Your task to perform on an android device: Open display settings Image 0: 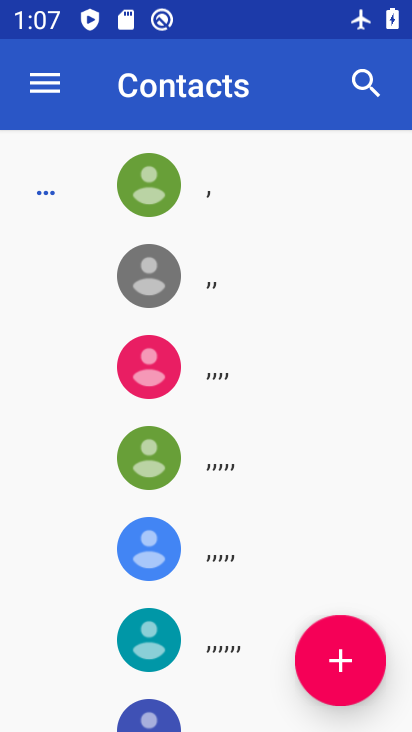
Step 0: press home button
Your task to perform on an android device: Open display settings Image 1: 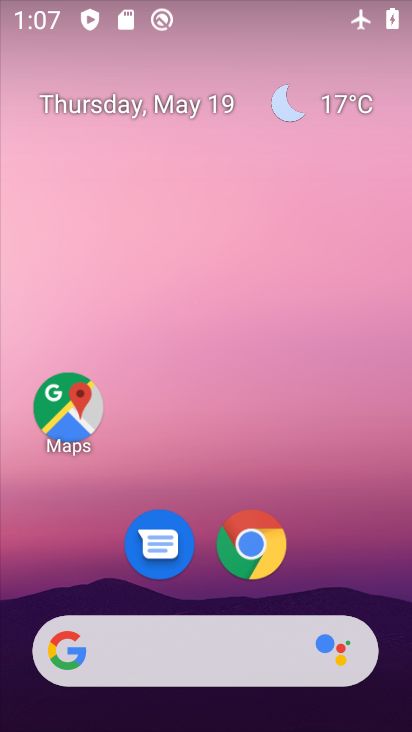
Step 1: drag from (226, 725) to (227, 54)
Your task to perform on an android device: Open display settings Image 2: 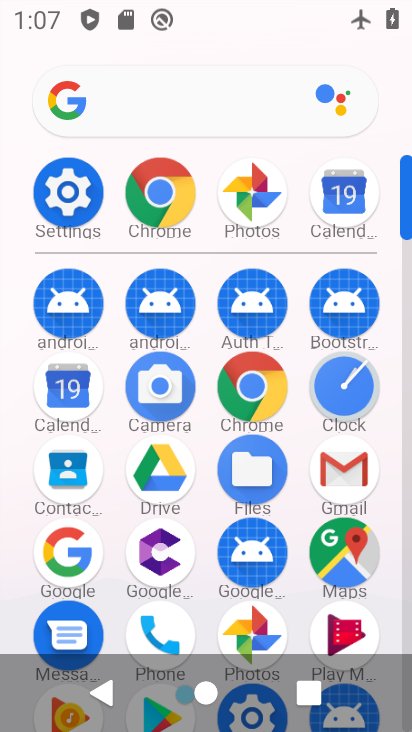
Step 2: click (72, 189)
Your task to perform on an android device: Open display settings Image 3: 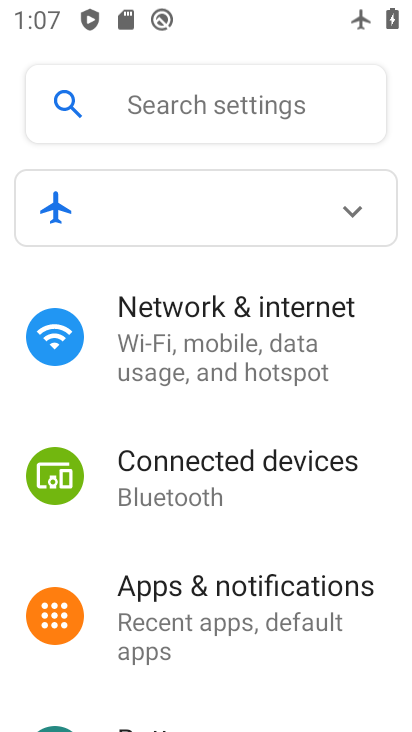
Step 3: drag from (185, 664) to (195, 379)
Your task to perform on an android device: Open display settings Image 4: 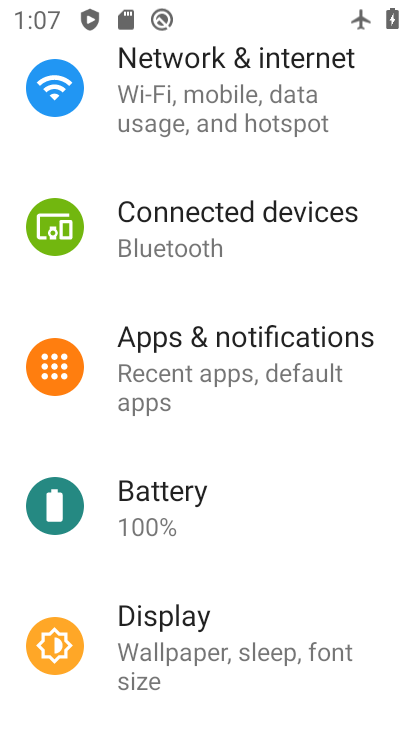
Step 4: click (173, 645)
Your task to perform on an android device: Open display settings Image 5: 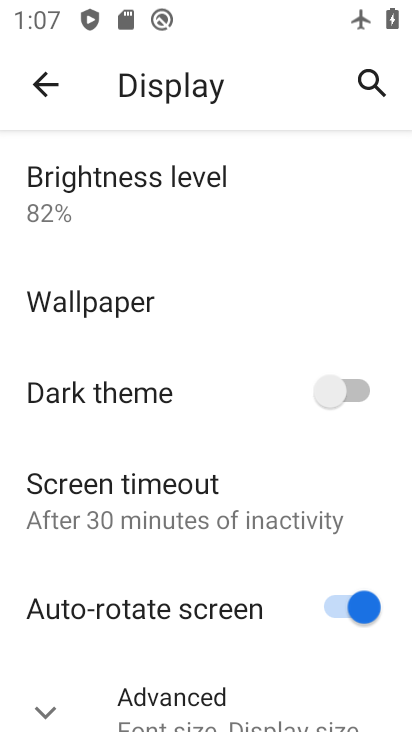
Step 5: task complete